Your task to perform on an android device: turn off data saver in the chrome app Image 0: 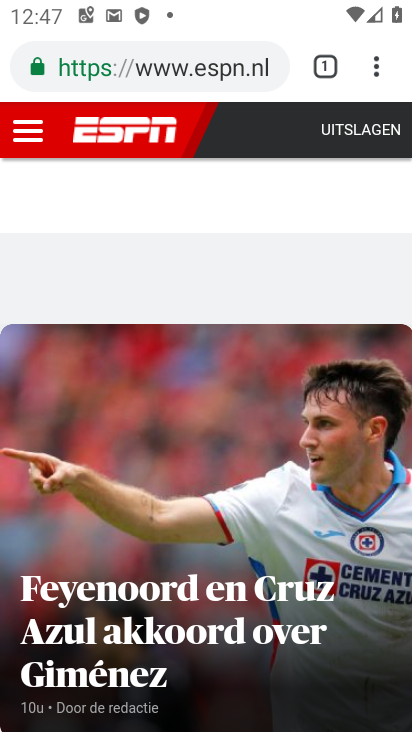
Step 0: press home button
Your task to perform on an android device: turn off data saver in the chrome app Image 1: 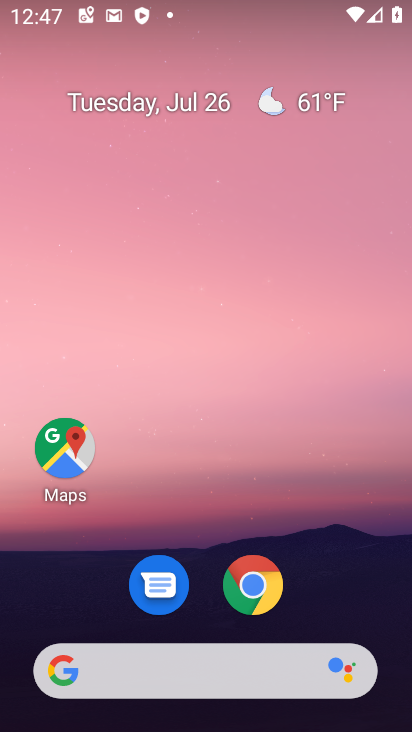
Step 1: click (257, 576)
Your task to perform on an android device: turn off data saver in the chrome app Image 2: 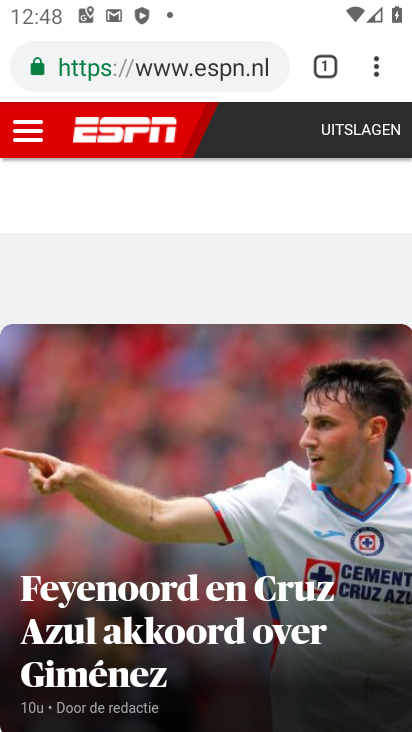
Step 2: drag from (374, 69) to (208, 589)
Your task to perform on an android device: turn off data saver in the chrome app Image 3: 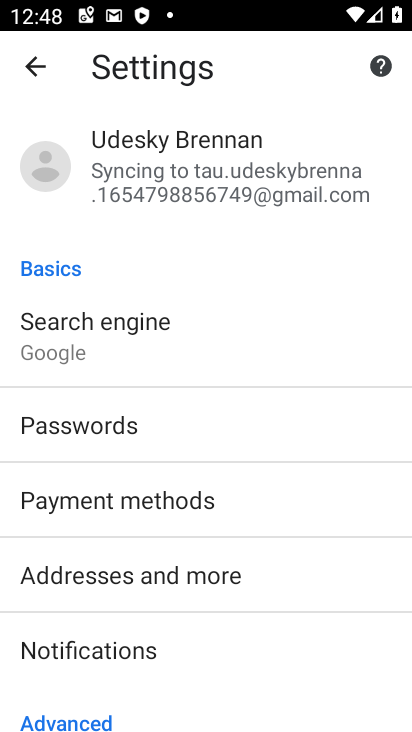
Step 3: drag from (199, 690) to (265, 74)
Your task to perform on an android device: turn off data saver in the chrome app Image 4: 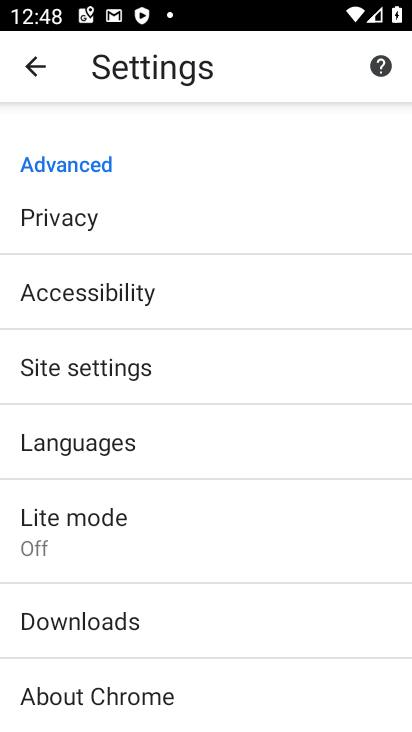
Step 4: click (90, 533)
Your task to perform on an android device: turn off data saver in the chrome app Image 5: 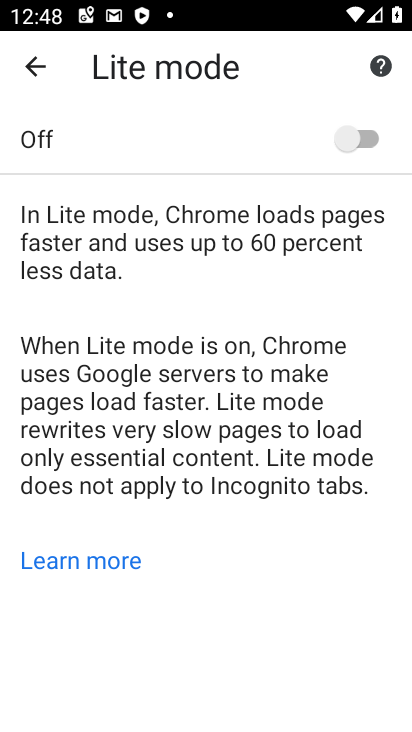
Step 5: task complete